Your task to perform on an android device: check data usage Image 0: 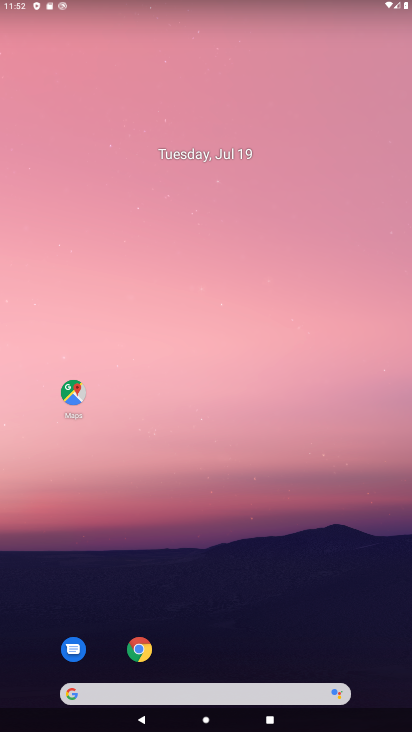
Step 0: drag from (186, 638) to (170, 224)
Your task to perform on an android device: check data usage Image 1: 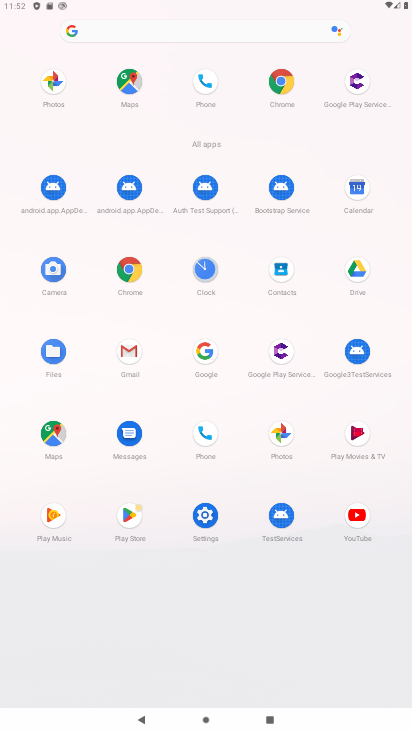
Step 1: click (213, 517)
Your task to perform on an android device: check data usage Image 2: 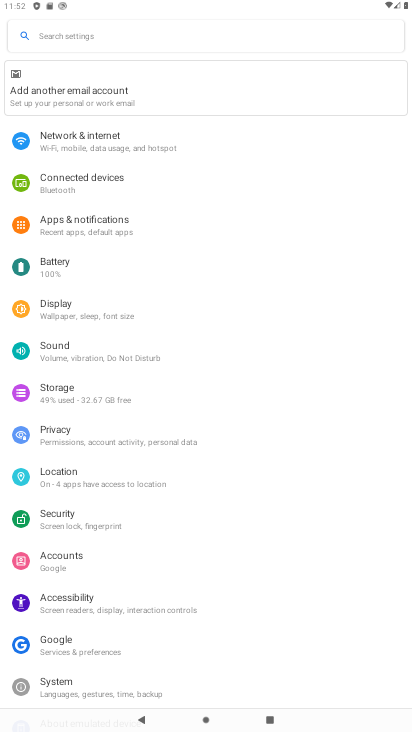
Step 2: click (122, 153)
Your task to perform on an android device: check data usage Image 3: 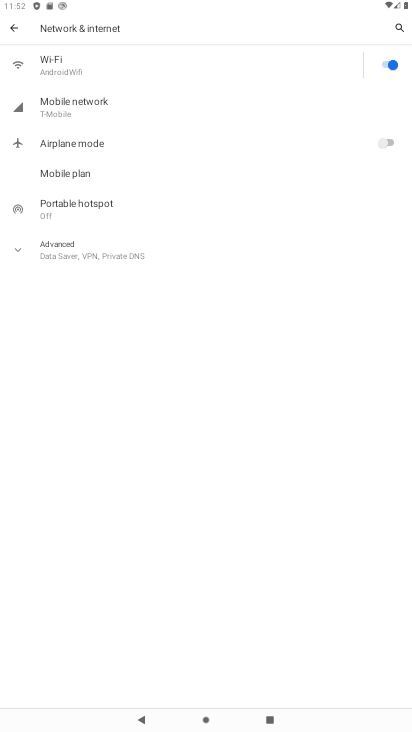
Step 3: click (180, 114)
Your task to perform on an android device: check data usage Image 4: 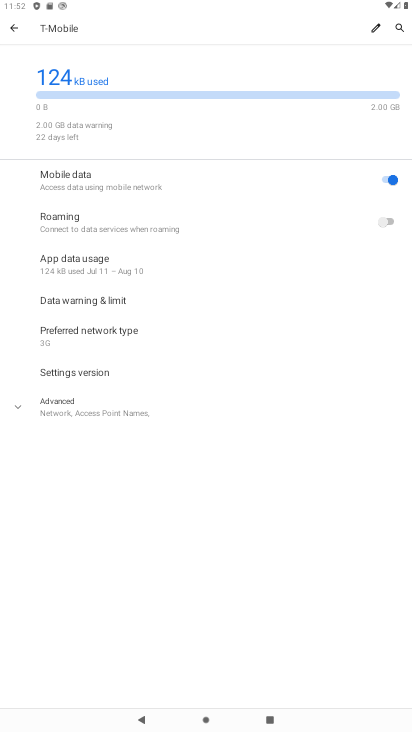
Step 4: click (180, 114)
Your task to perform on an android device: check data usage Image 5: 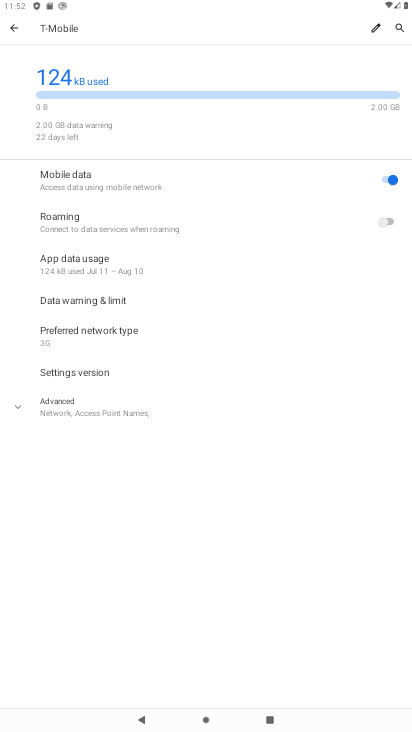
Step 5: task complete